Your task to perform on an android device: change keyboard looks Image 0: 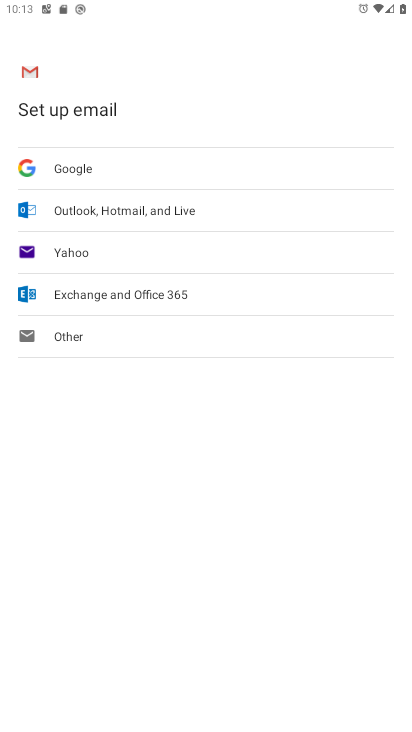
Step 0: press home button
Your task to perform on an android device: change keyboard looks Image 1: 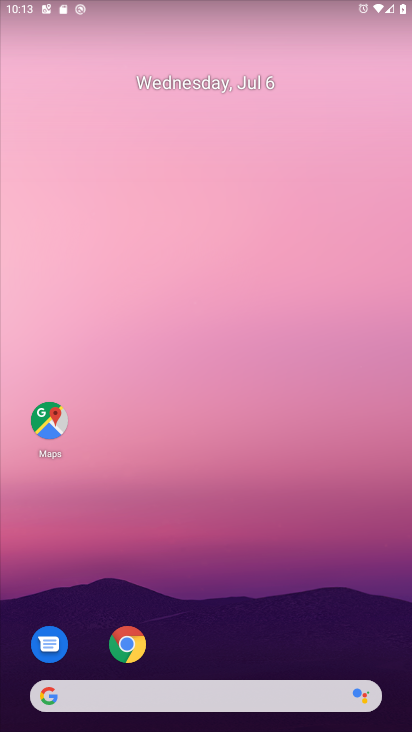
Step 1: drag from (249, 661) to (222, 165)
Your task to perform on an android device: change keyboard looks Image 2: 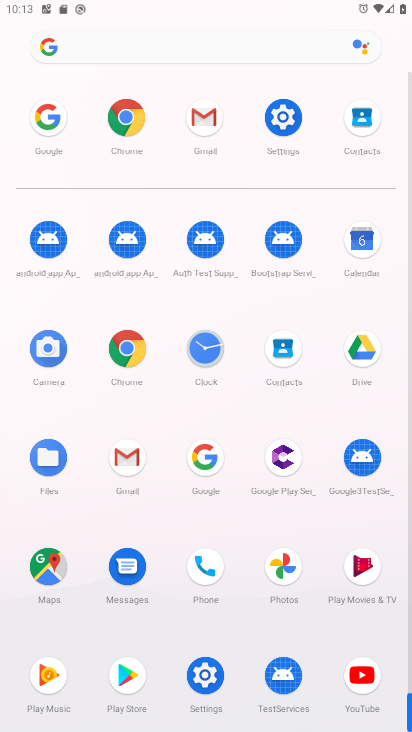
Step 2: click (286, 113)
Your task to perform on an android device: change keyboard looks Image 3: 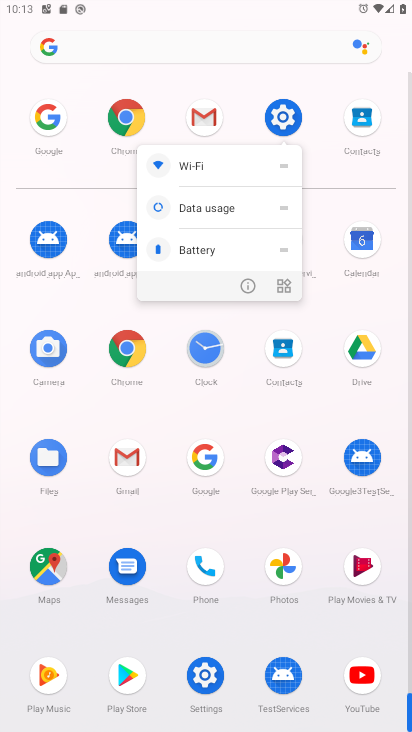
Step 3: click (283, 129)
Your task to perform on an android device: change keyboard looks Image 4: 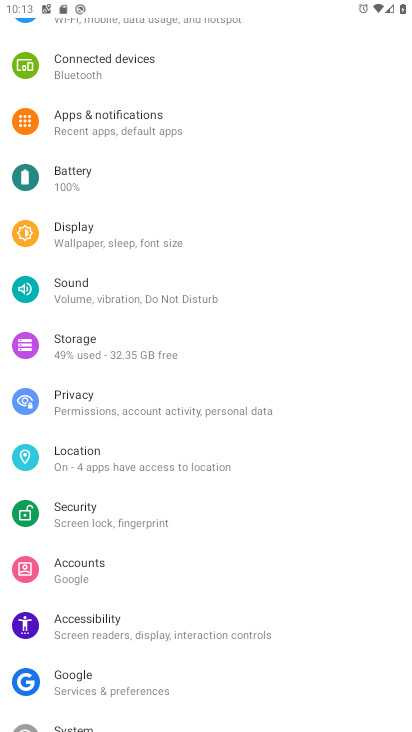
Step 4: drag from (197, 587) to (198, 310)
Your task to perform on an android device: change keyboard looks Image 5: 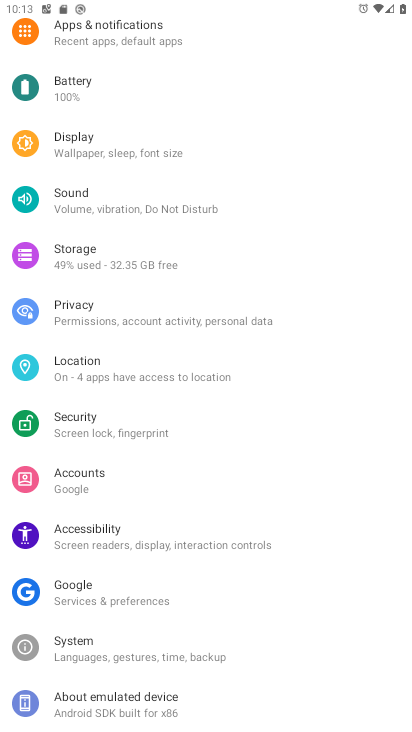
Step 5: click (151, 656)
Your task to perform on an android device: change keyboard looks Image 6: 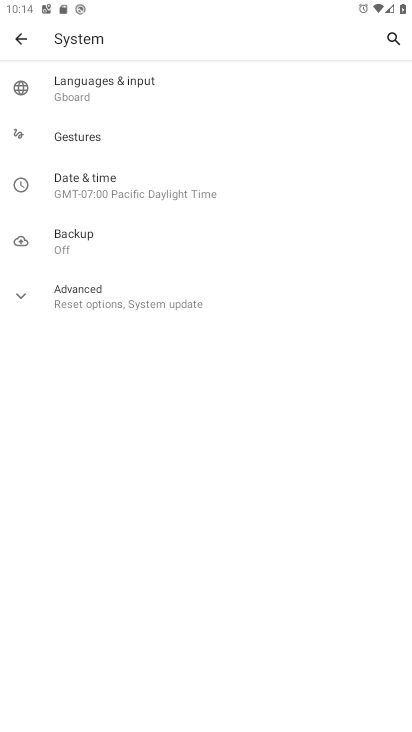
Step 6: click (140, 88)
Your task to perform on an android device: change keyboard looks Image 7: 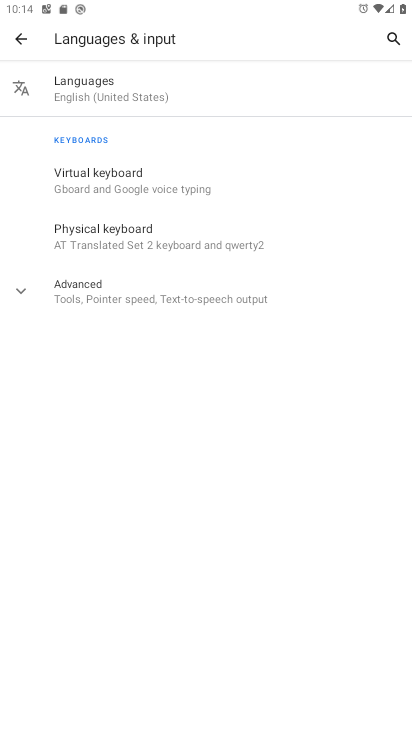
Step 7: click (178, 182)
Your task to perform on an android device: change keyboard looks Image 8: 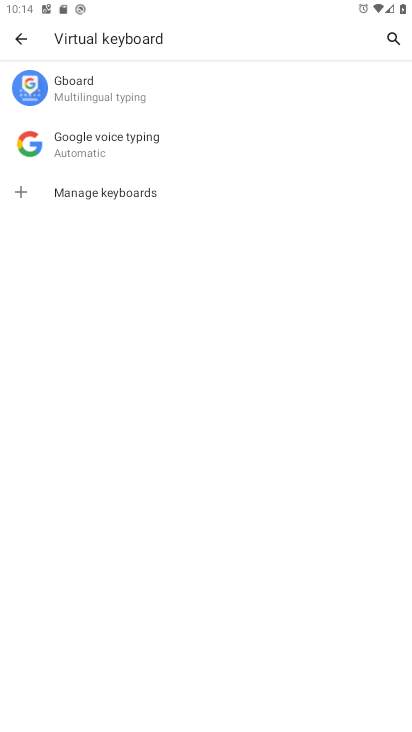
Step 8: click (173, 91)
Your task to perform on an android device: change keyboard looks Image 9: 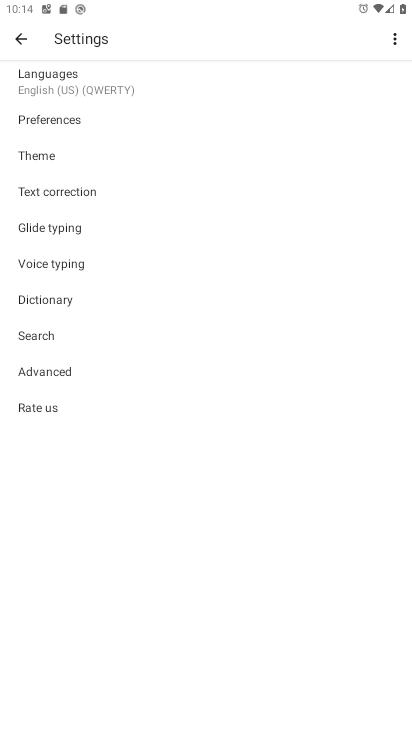
Step 9: click (72, 85)
Your task to perform on an android device: change keyboard looks Image 10: 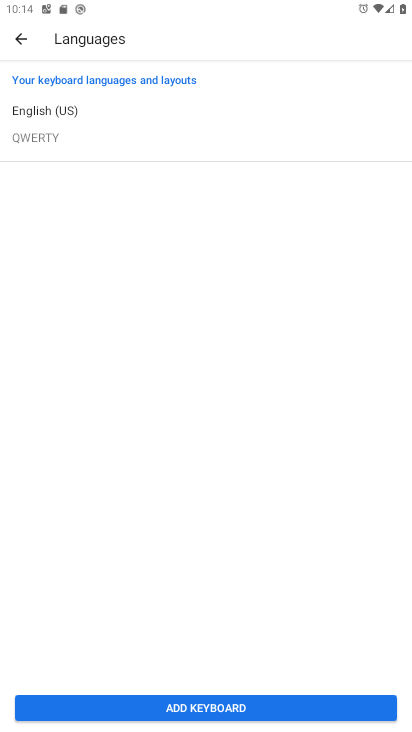
Step 10: click (20, 40)
Your task to perform on an android device: change keyboard looks Image 11: 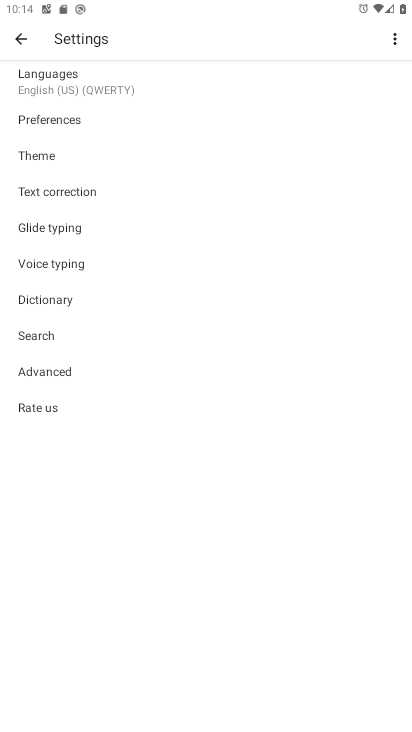
Step 11: click (47, 156)
Your task to perform on an android device: change keyboard looks Image 12: 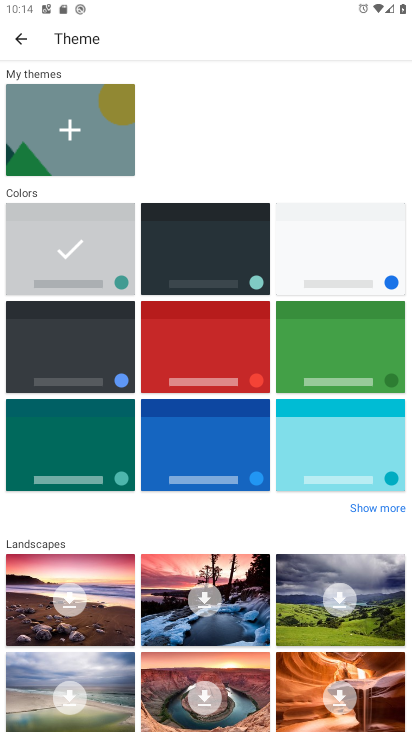
Step 12: click (213, 248)
Your task to perform on an android device: change keyboard looks Image 13: 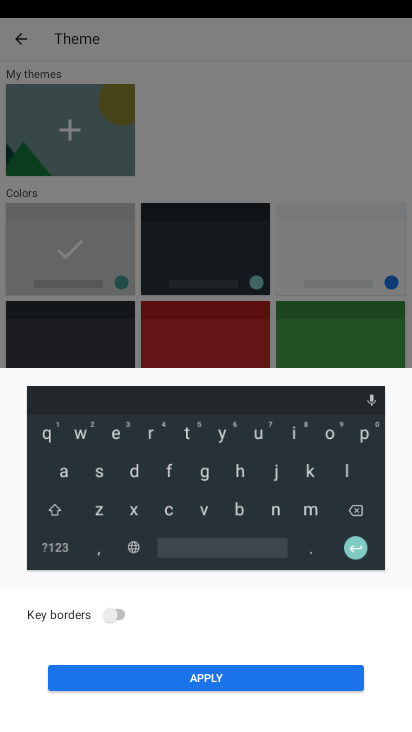
Step 13: click (177, 674)
Your task to perform on an android device: change keyboard looks Image 14: 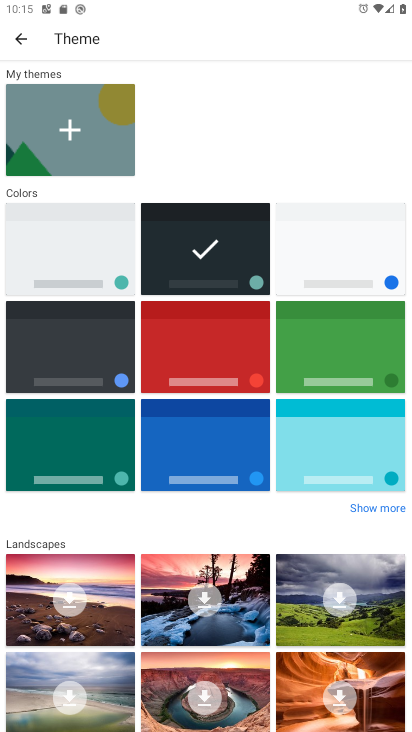
Step 14: task complete